Your task to perform on an android device: set default search engine in the chrome app Image 0: 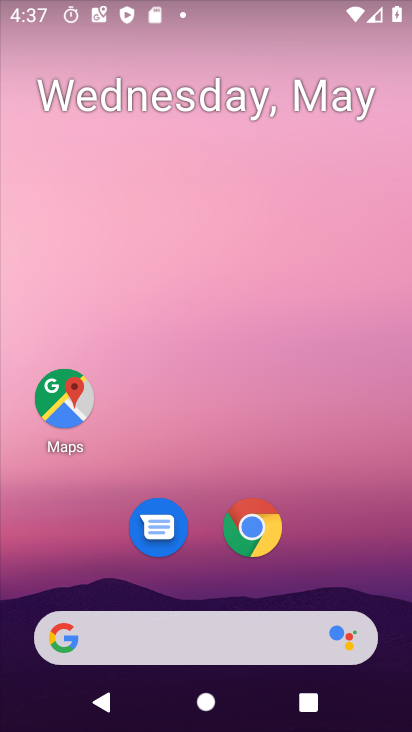
Step 0: click (270, 533)
Your task to perform on an android device: set default search engine in the chrome app Image 1: 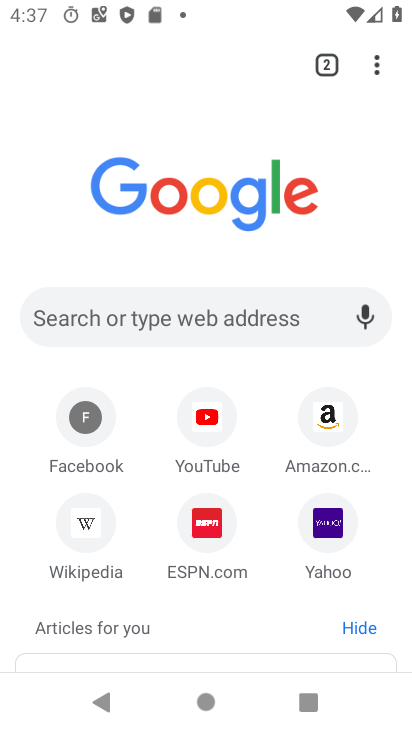
Step 1: drag from (380, 60) to (147, 557)
Your task to perform on an android device: set default search engine in the chrome app Image 2: 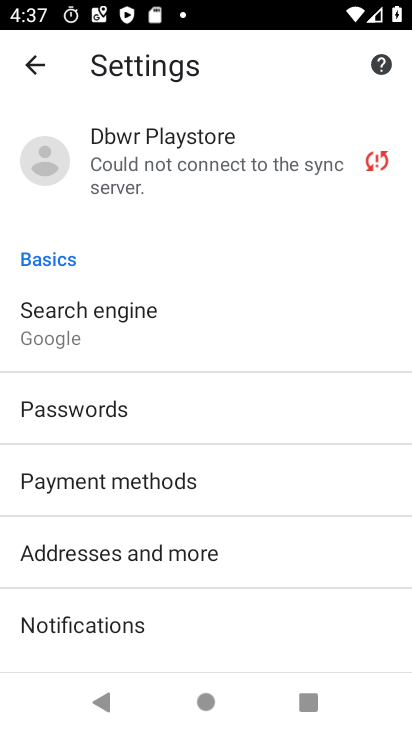
Step 2: click (82, 319)
Your task to perform on an android device: set default search engine in the chrome app Image 3: 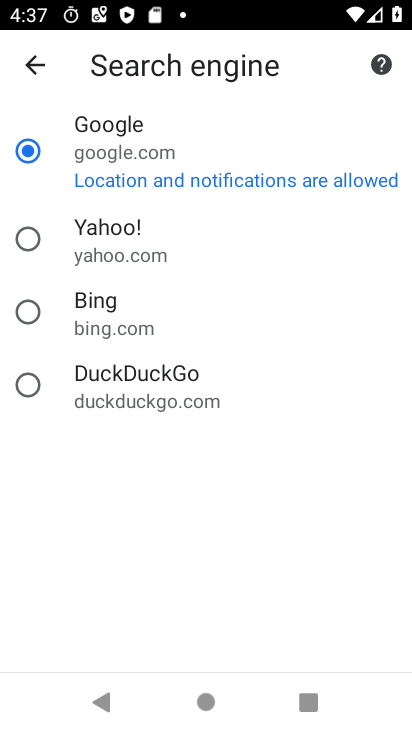
Step 3: task complete